Your task to perform on an android device: change the clock display to analog Image 0: 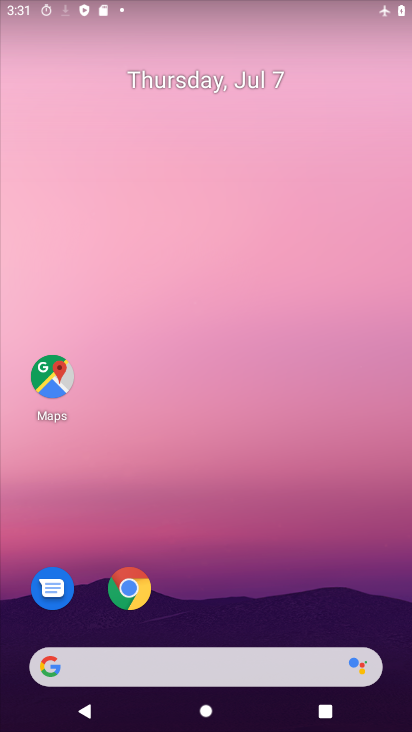
Step 0: drag from (290, 694) to (254, 239)
Your task to perform on an android device: change the clock display to analog Image 1: 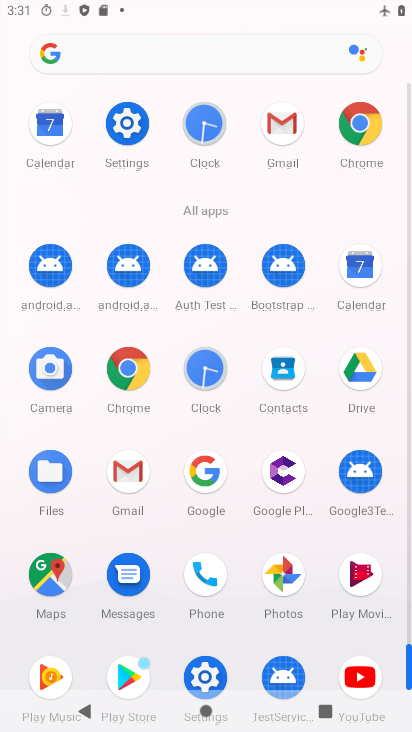
Step 1: click (254, 242)
Your task to perform on an android device: change the clock display to analog Image 2: 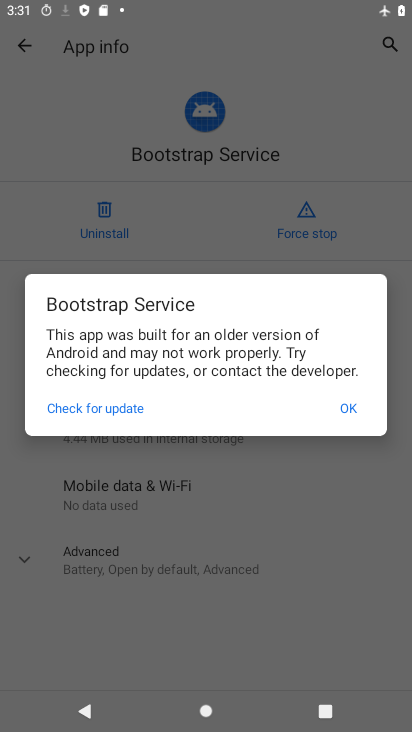
Step 2: click (206, 367)
Your task to perform on an android device: change the clock display to analog Image 3: 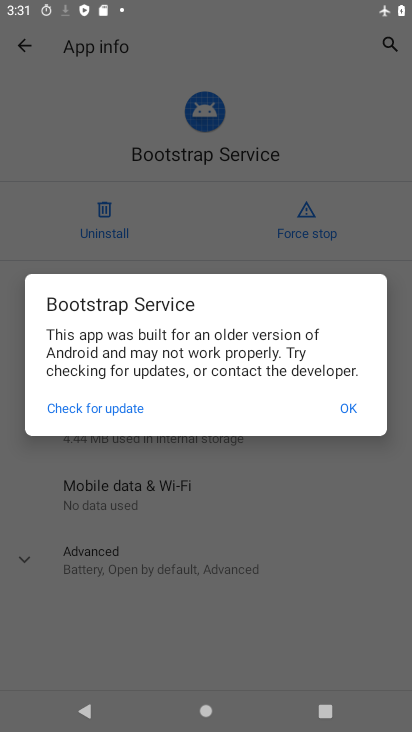
Step 3: click (349, 407)
Your task to perform on an android device: change the clock display to analog Image 4: 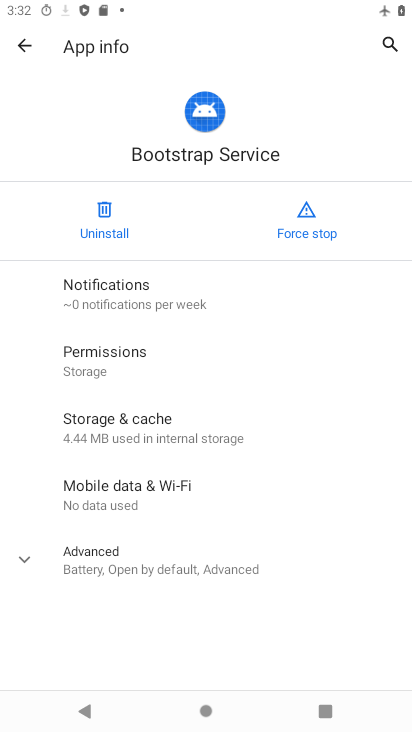
Step 4: click (21, 46)
Your task to perform on an android device: change the clock display to analog Image 5: 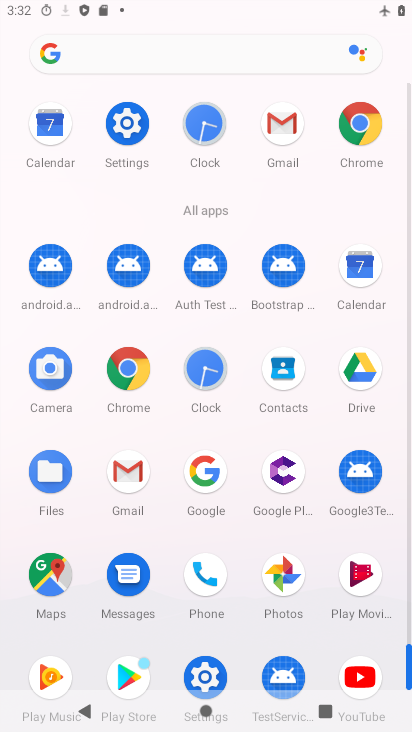
Step 5: click (207, 132)
Your task to perform on an android device: change the clock display to analog Image 6: 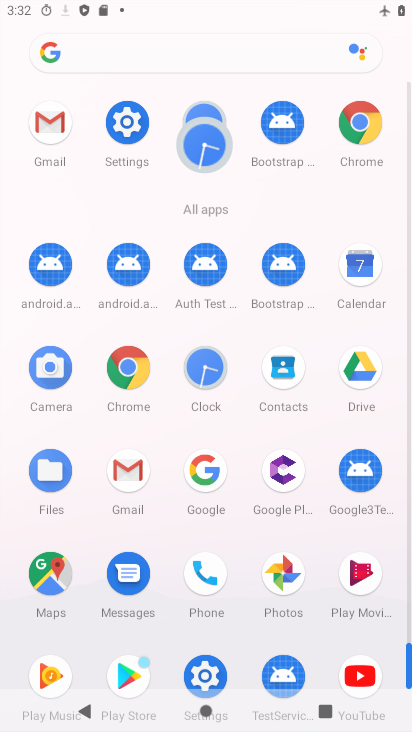
Step 6: click (204, 134)
Your task to perform on an android device: change the clock display to analog Image 7: 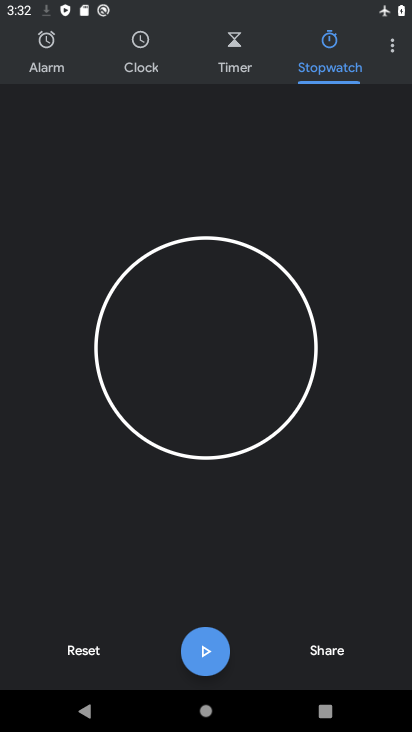
Step 7: click (225, 140)
Your task to perform on an android device: change the clock display to analog Image 8: 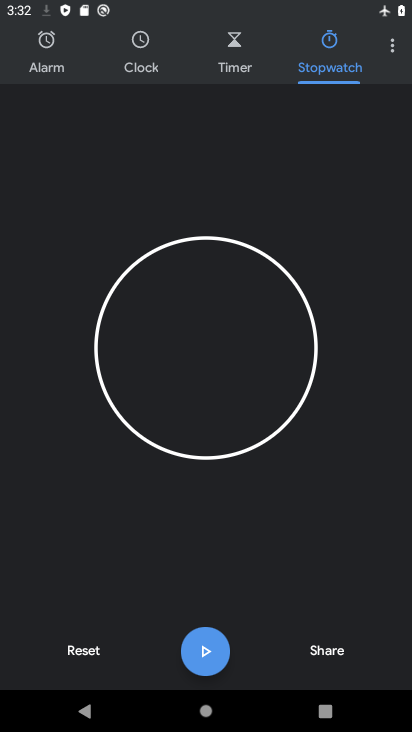
Step 8: click (398, 56)
Your task to perform on an android device: change the clock display to analog Image 9: 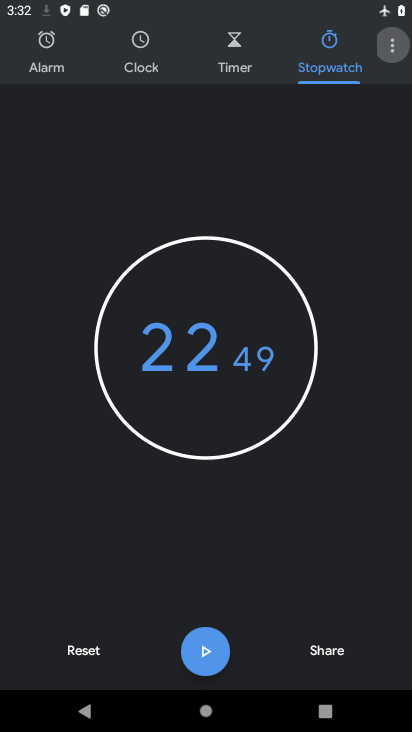
Step 9: click (398, 56)
Your task to perform on an android device: change the clock display to analog Image 10: 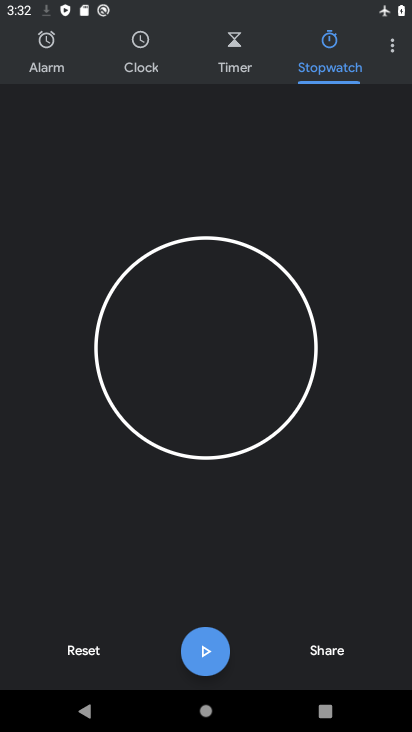
Step 10: click (398, 39)
Your task to perform on an android device: change the clock display to analog Image 11: 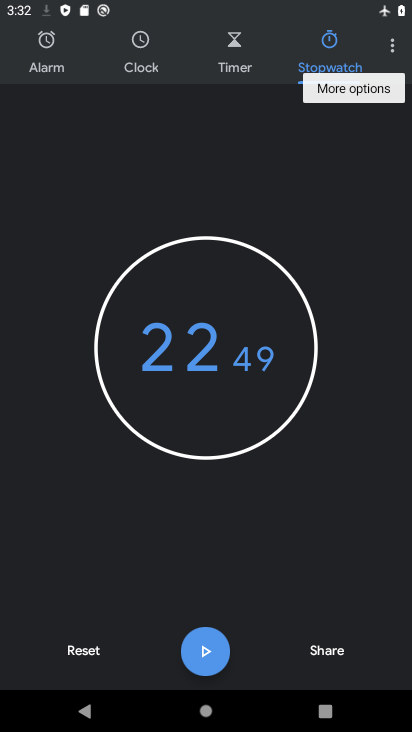
Step 11: click (398, 47)
Your task to perform on an android device: change the clock display to analog Image 12: 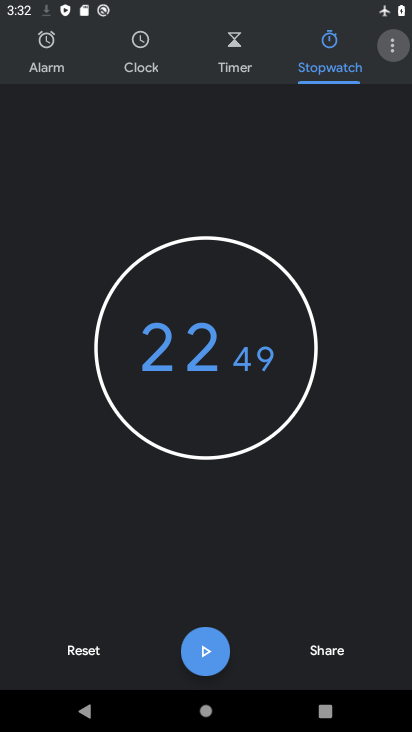
Step 12: click (400, 56)
Your task to perform on an android device: change the clock display to analog Image 13: 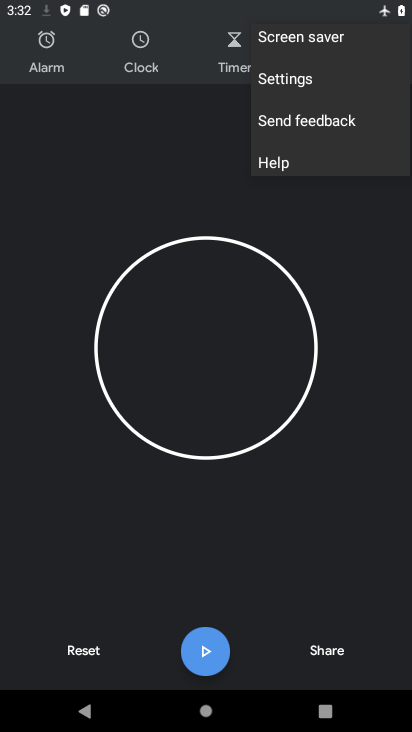
Step 13: click (400, 59)
Your task to perform on an android device: change the clock display to analog Image 14: 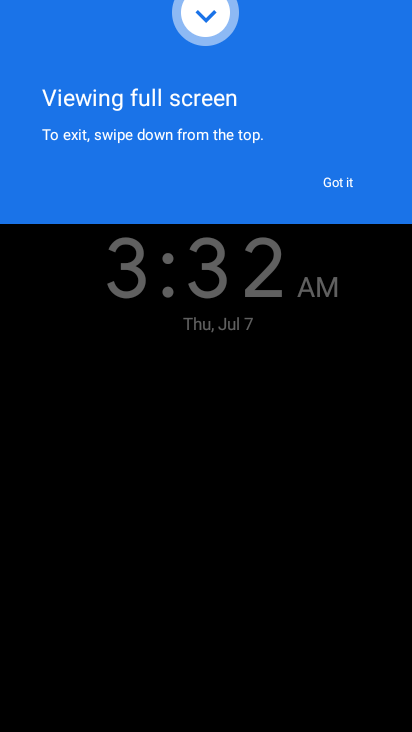
Step 14: press back button
Your task to perform on an android device: change the clock display to analog Image 15: 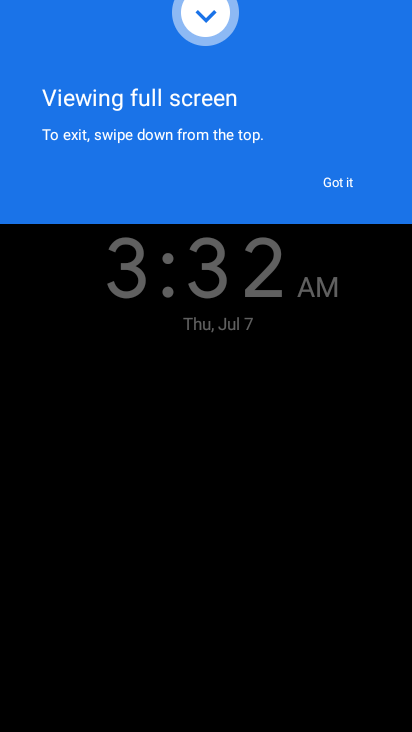
Step 15: press back button
Your task to perform on an android device: change the clock display to analog Image 16: 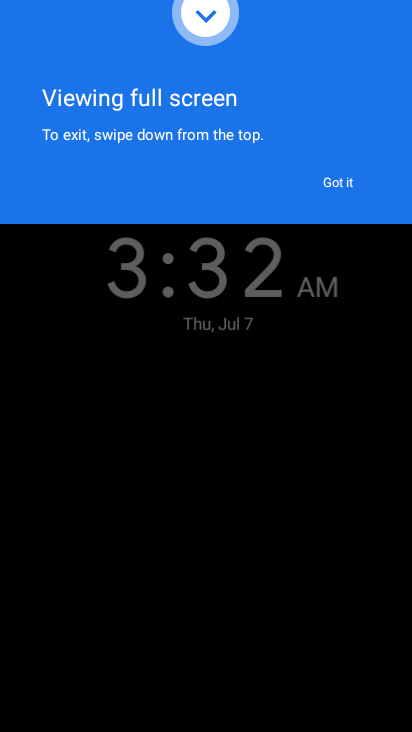
Step 16: press back button
Your task to perform on an android device: change the clock display to analog Image 17: 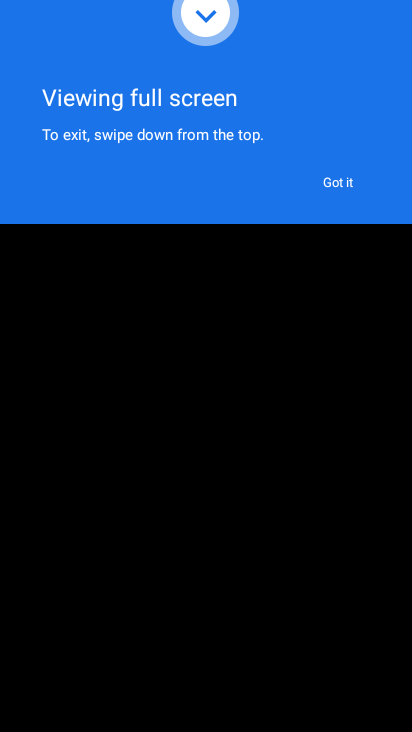
Step 17: press back button
Your task to perform on an android device: change the clock display to analog Image 18: 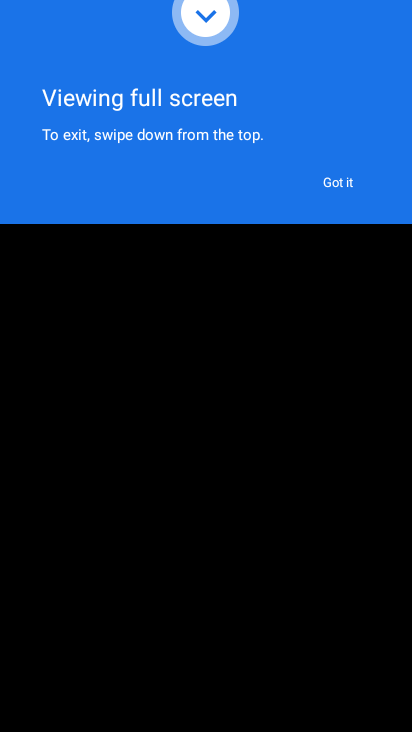
Step 18: press back button
Your task to perform on an android device: change the clock display to analog Image 19: 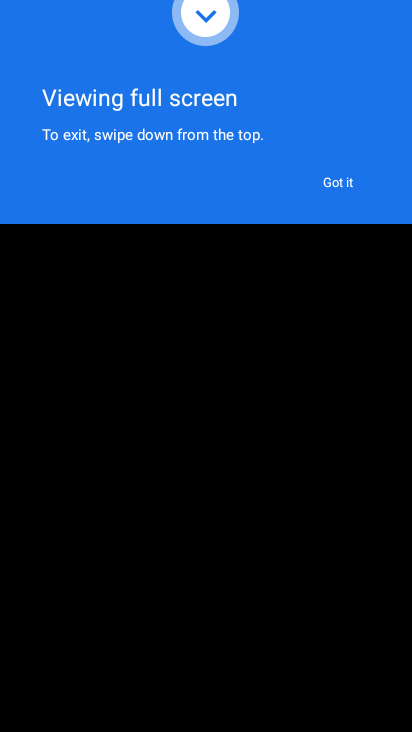
Step 19: click (331, 188)
Your task to perform on an android device: change the clock display to analog Image 20: 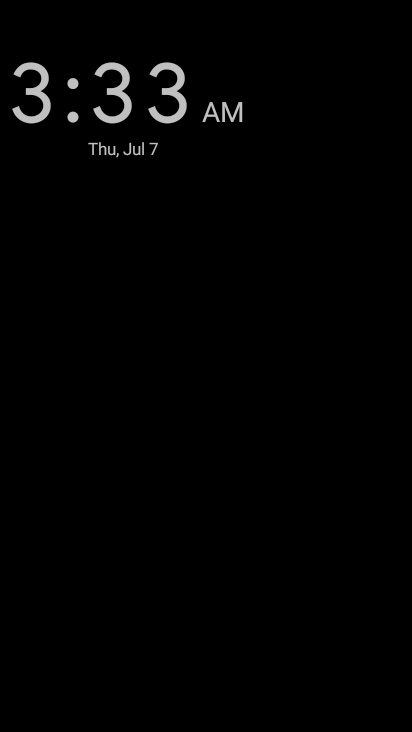
Step 20: click (341, 188)
Your task to perform on an android device: change the clock display to analog Image 21: 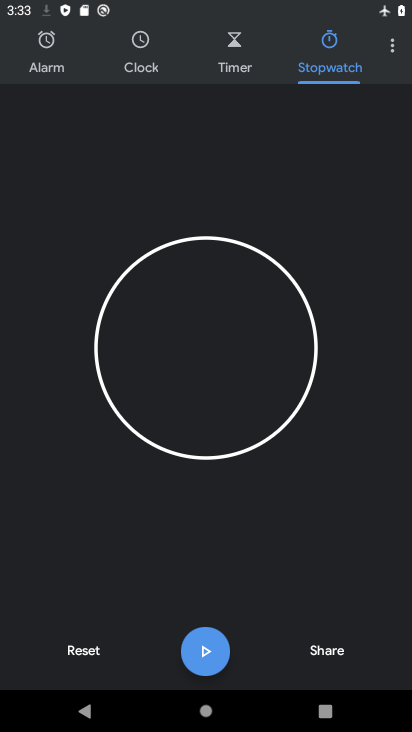
Step 21: click (393, 48)
Your task to perform on an android device: change the clock display to analog Image 22: 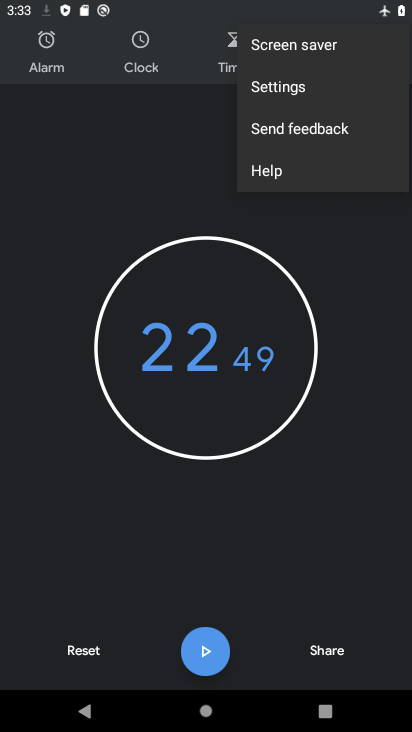
Step 22: click (281, 87)
Your task to perform on an android device: change the clock display to analog Image 23: 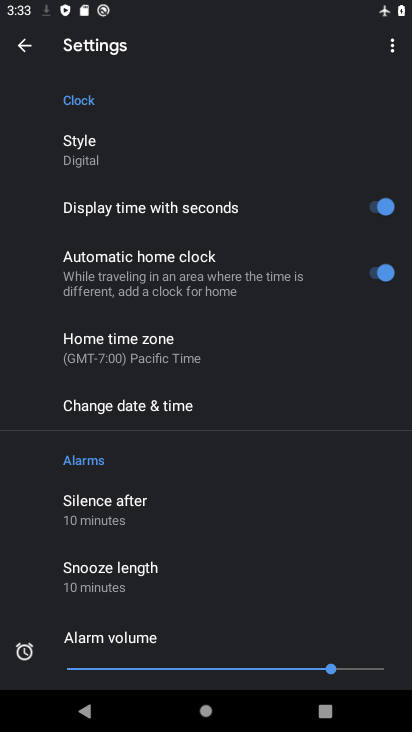
Step 23: click (112, 146)
Your task to perform on an android device: change the clock display to analog Image 24: 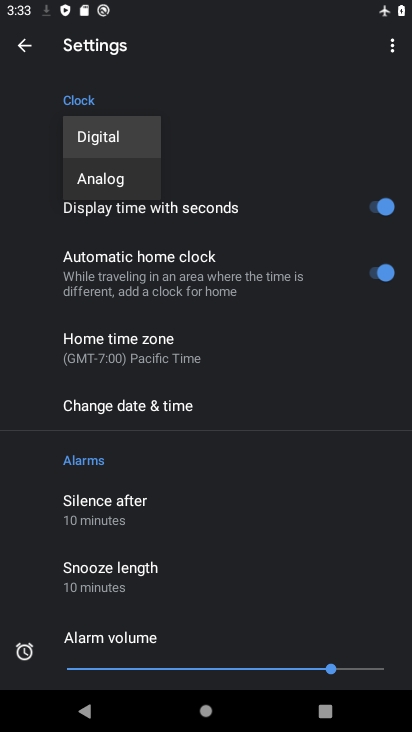
Step 24: click (110, 181)
Your task to perform on an android device: change the clock display to analog Image 25: 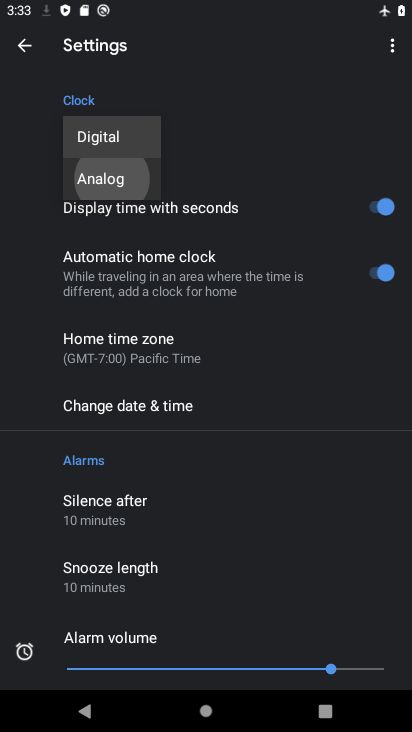
Step 25: click (125, 184)
Your task to perform on an android device: change the clock display to analog Image 26: 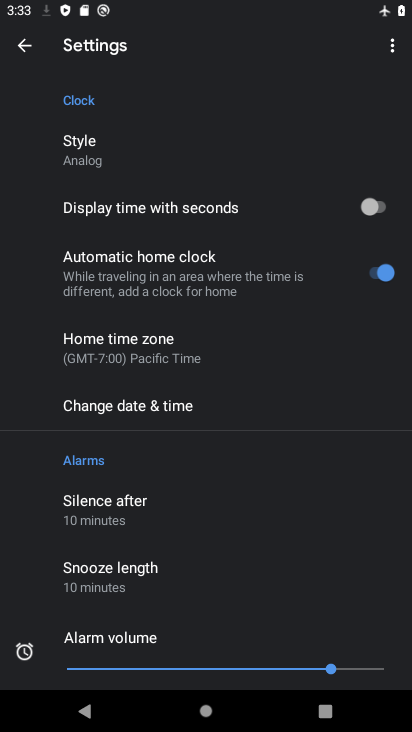
Step 26: task complete